Your task to perform on an android device: Go to calendar. Show me events next week Image 0: 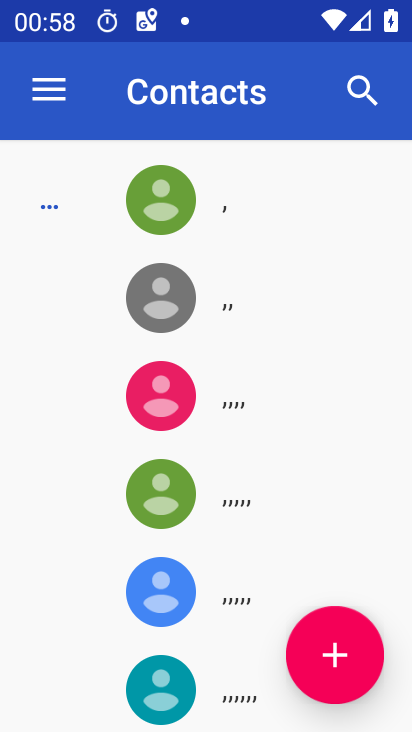
Step 0: press home button
Your task to perform on an android device: Go to calendar. Show me events next week Image 1: 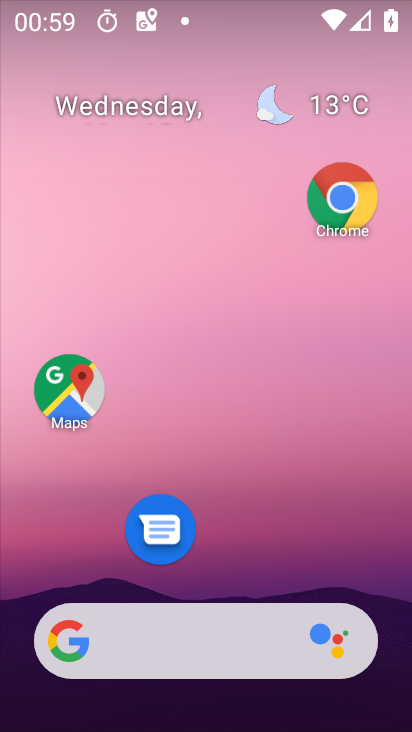
Step 1: click (167, 107)
Your task to perform on an android device: Go to calendar. Show me events next week Image 2: 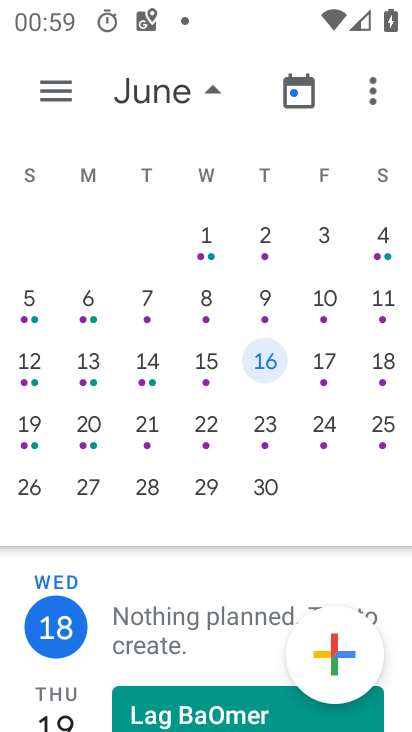
Step 2: click (259, 420)
Your task to perform on an android device: Go to calendar. Show me events next week Image 3: 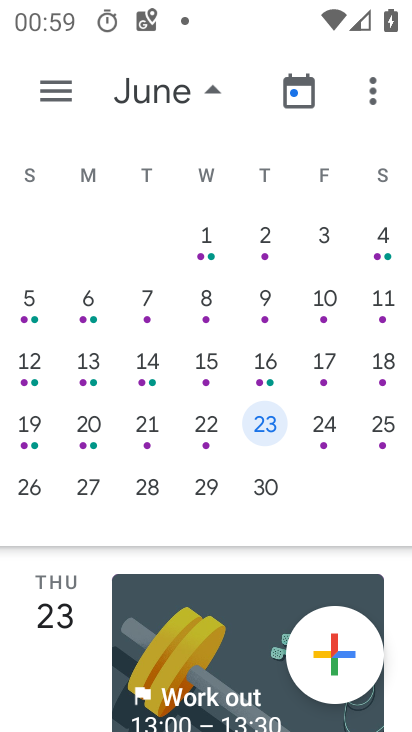
Step 3: task complete